Your task to perform on an android device: Open calendar and show me the fourth week of next month Image 0: 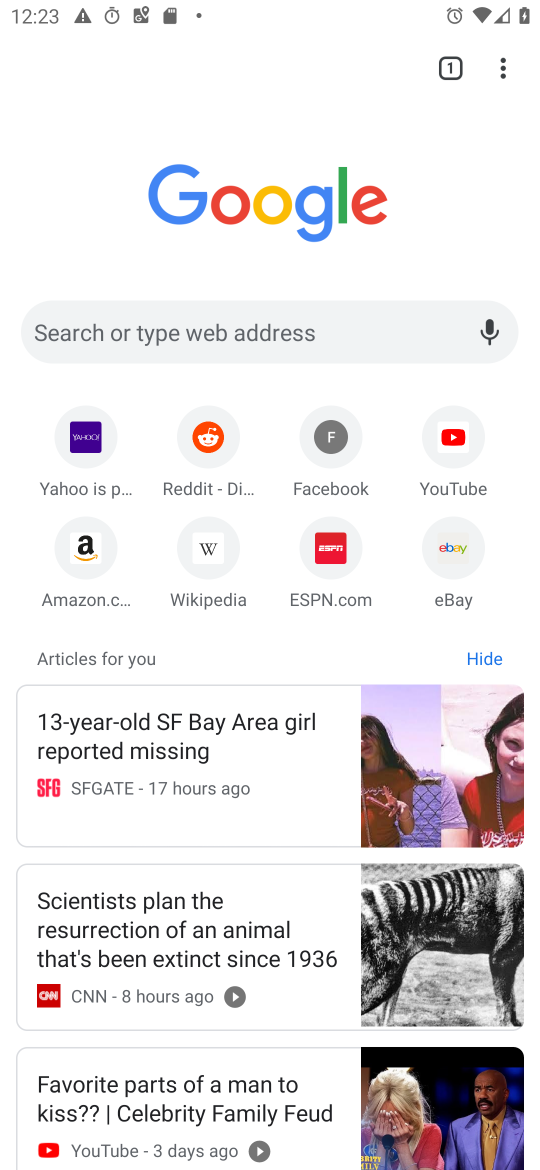
Step 0: press home button
Your task to perform on an android device: Open calendar and show me the fourth week of next month Image 1: 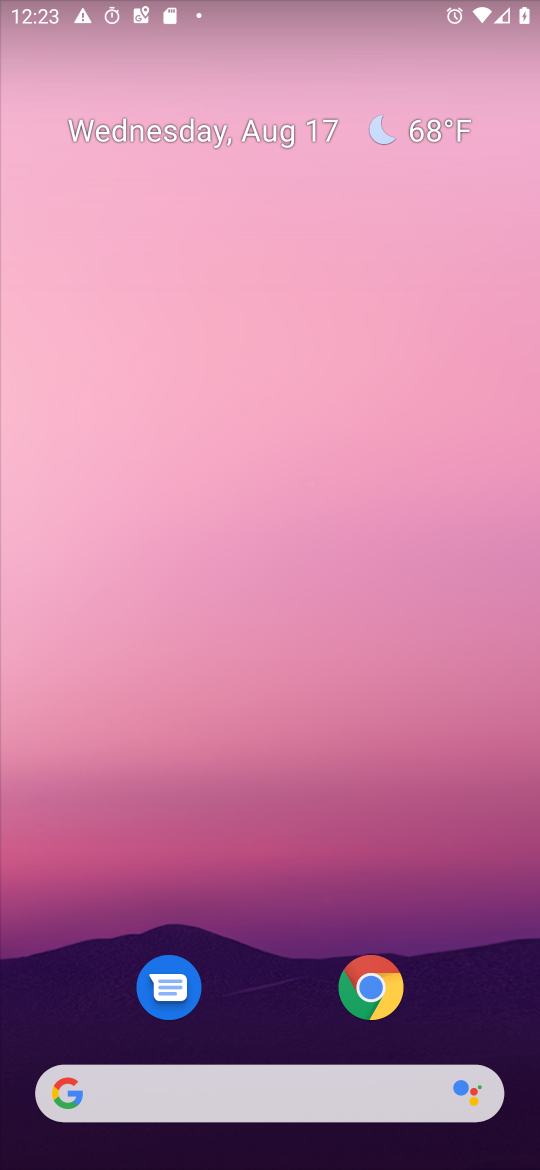
Step 1: drag from (36, 1123) to (341, 286)
Your task to perform on an android device: Open calendar and show me the fourth week of next month Image 2: 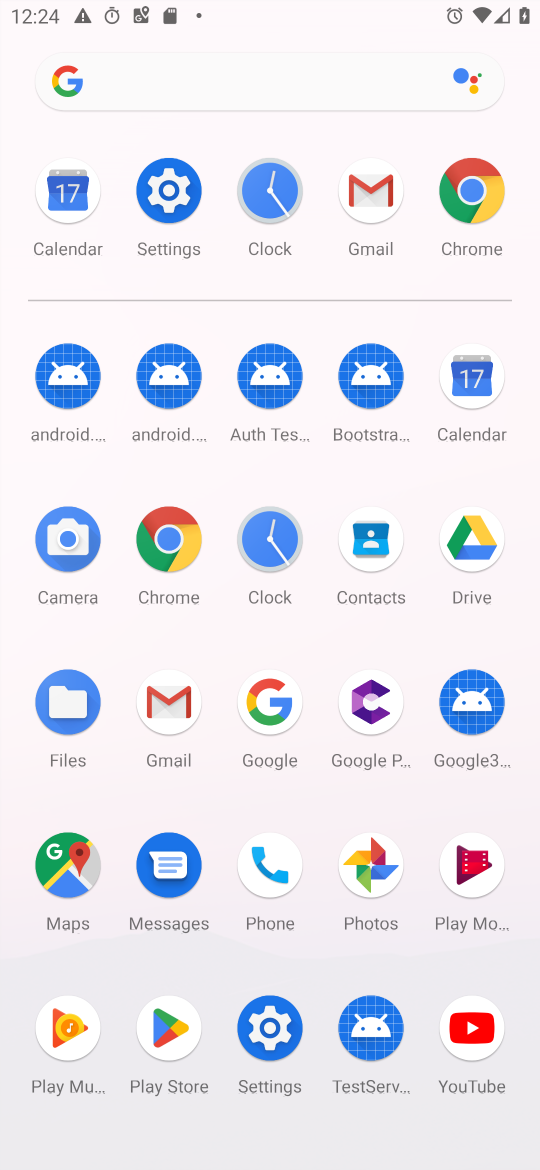
Step 2: click (489, 395)
Your task to perform on an android device: Open calendar and show me the fourth week of next month Image 3: 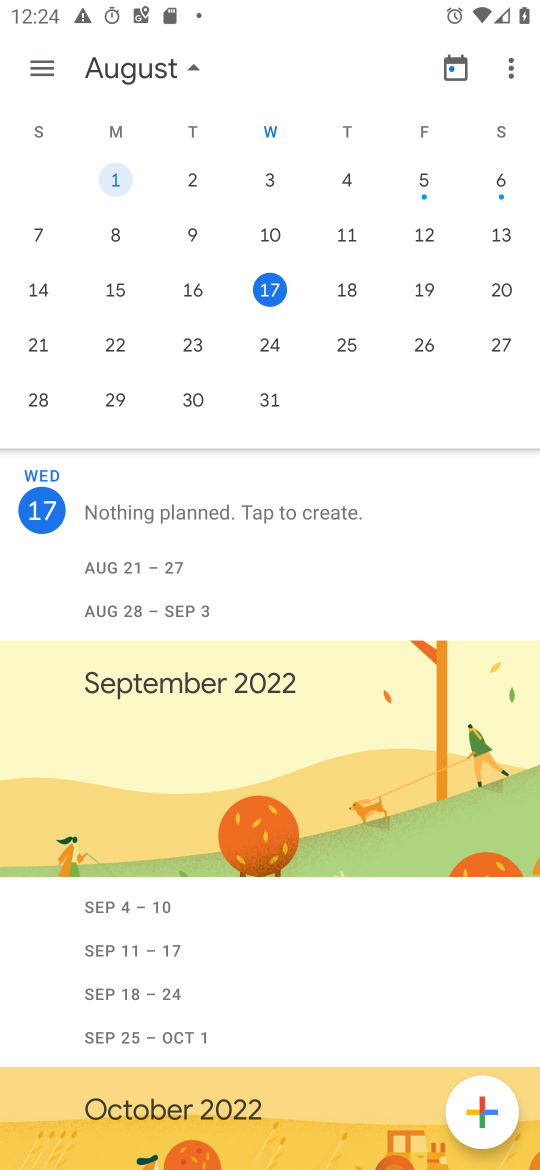
Step 3: drag from (529, 251) to (118, 232)
Your task to perform on an android device: Open calendar and show me the fourth week of next month Image 4: 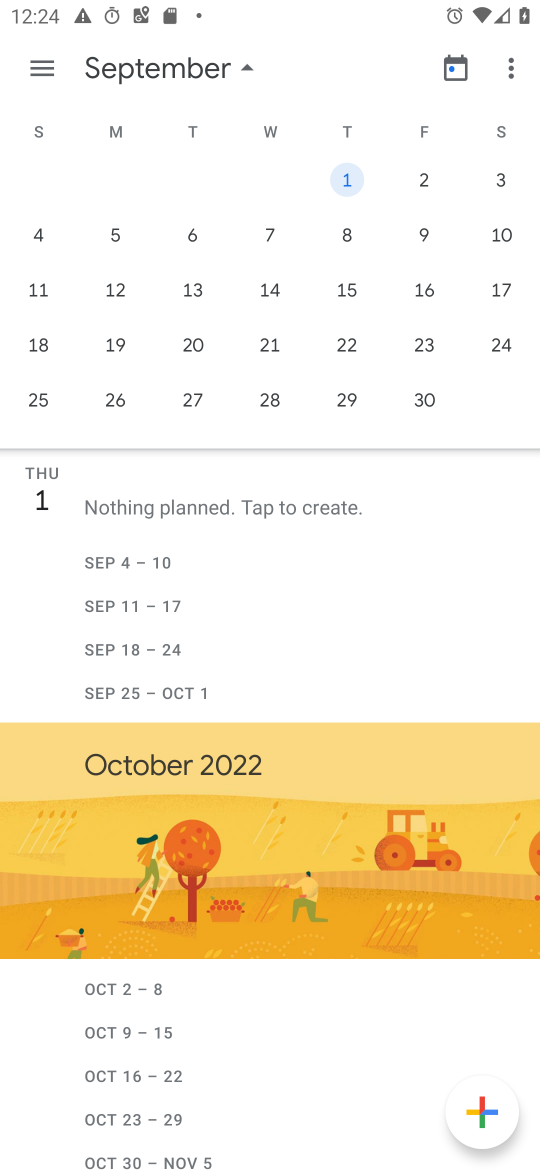
Step 4: click (121, 336)
Your task to perform on an android device: Open calendar and show me the fourth week of next month Image 5: 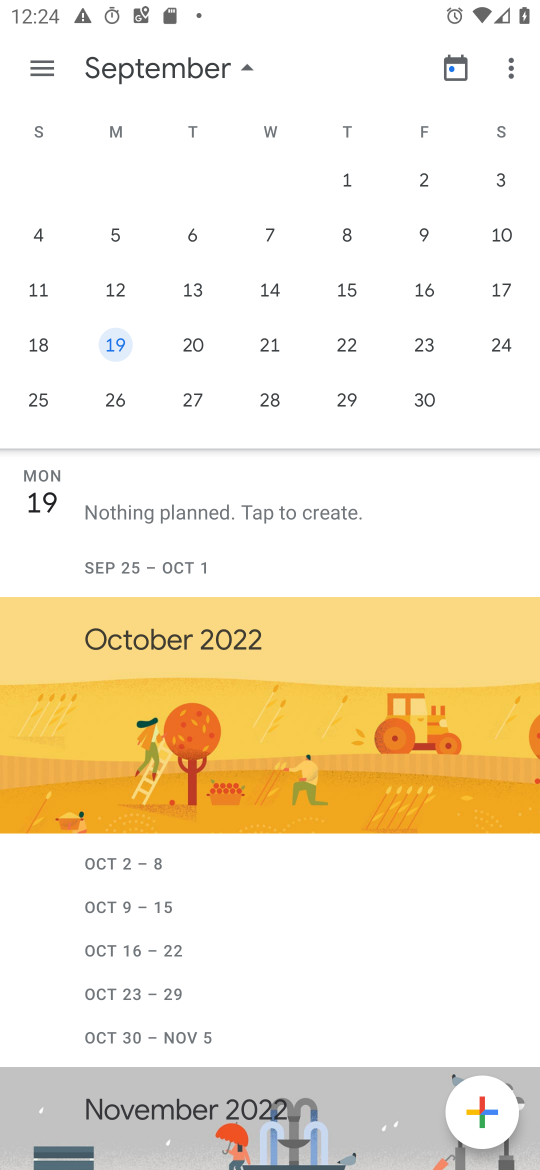
Step 5: task complete